Your task to perform on an android device: Do I have any events today? Image 0: 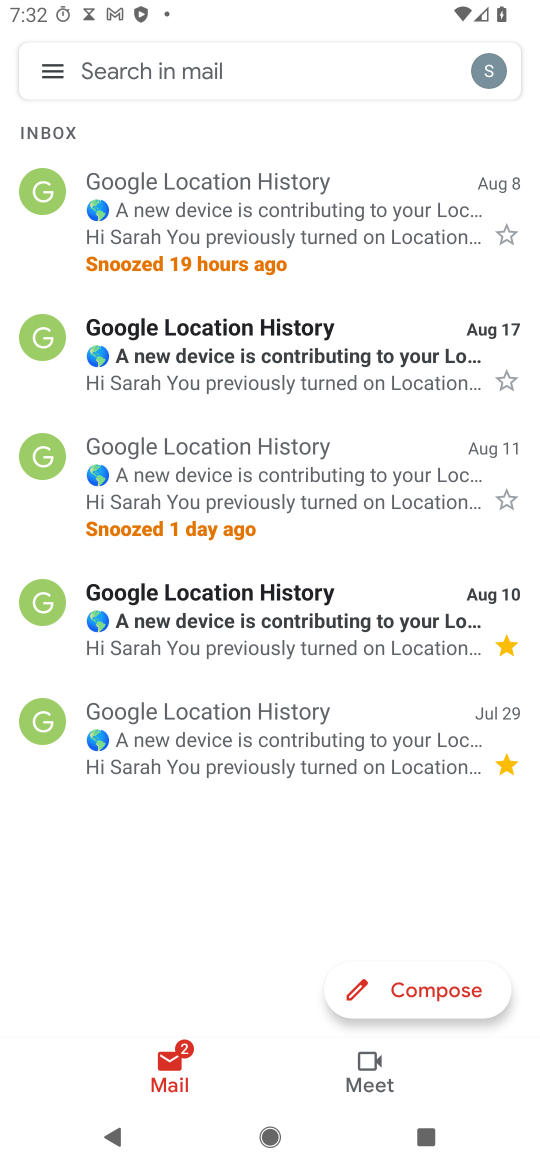
Step 0: press home button
Your task to perform on an android device: Do I have any events today? Image 1: 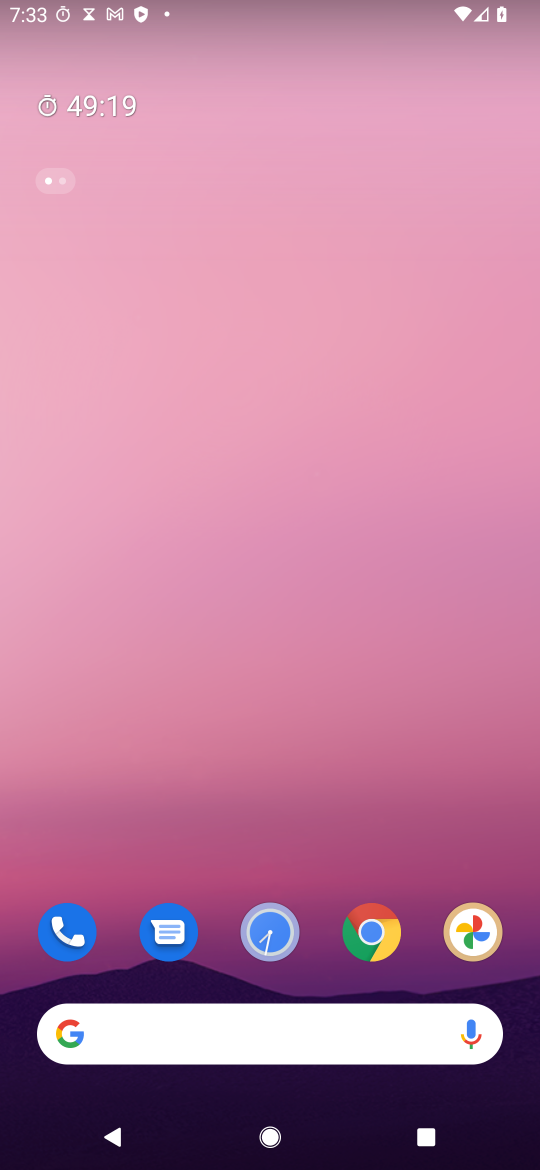
Step 1: drag from (265, 686) to (440, 62)
Your task to perform on an android device: Do I have any events today? Image 2: 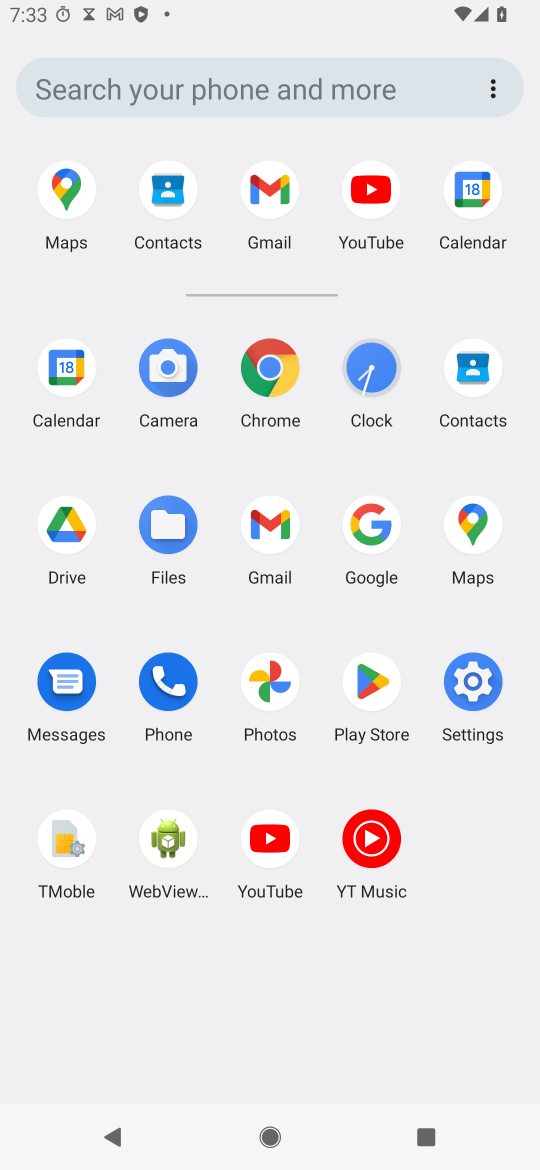
Step 2: click (52, 358)
Your task to perform on an android device: Do I have any events today? Image 3: 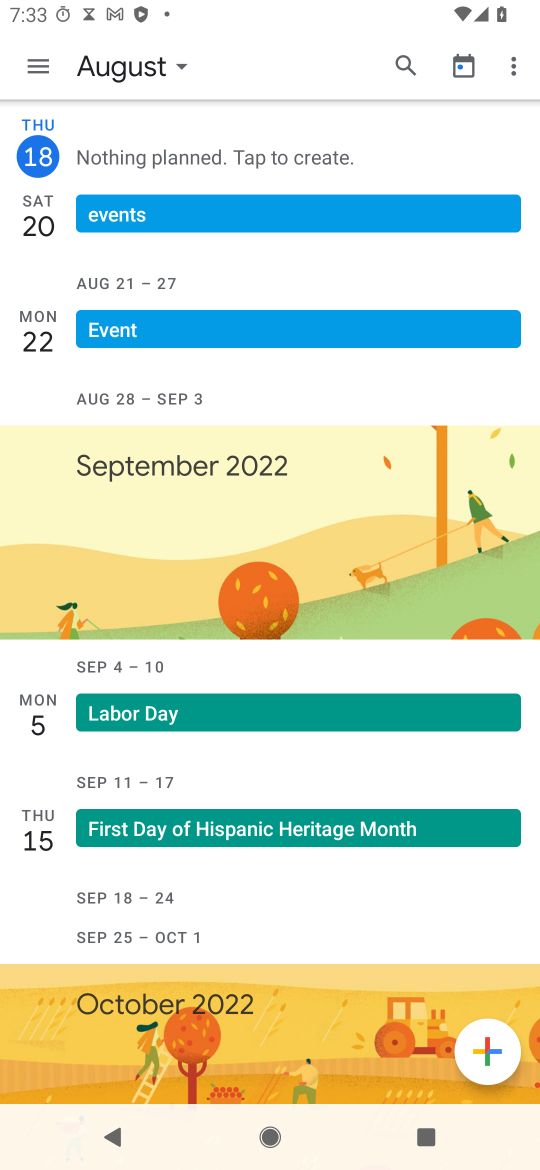
Step 3: click (137, 52)
Your task to perform on an android device: Do I have any events today? Image 4: 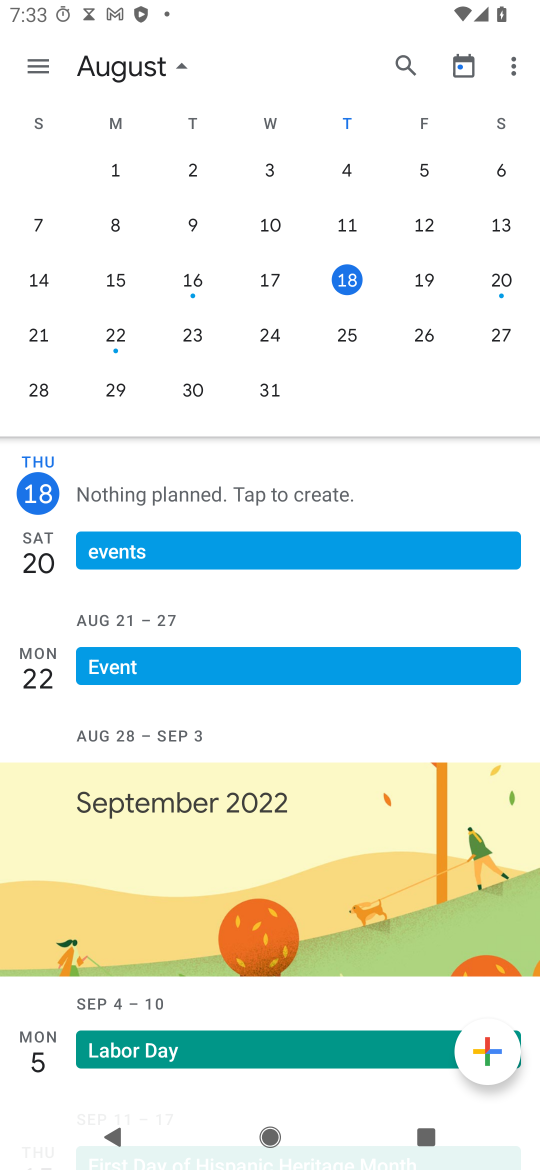
Step 4: click (338, 270)
Your task to perform on an android device: Do I have any events today? Image 5: 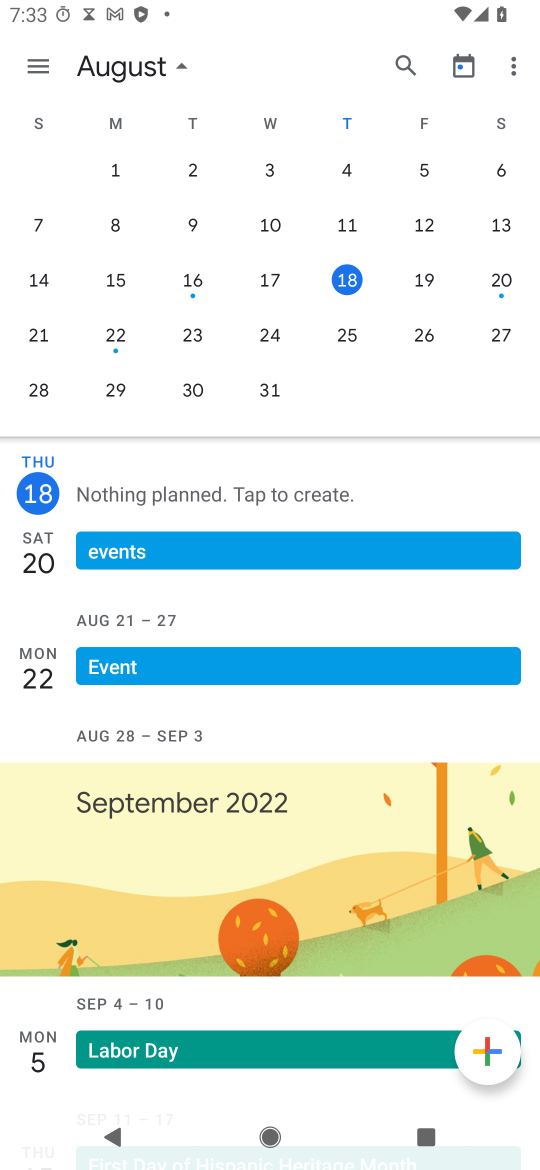
Step 5: task complete